Your task to perform on an android device: What's the weather going to be tomorrow? Image 0: 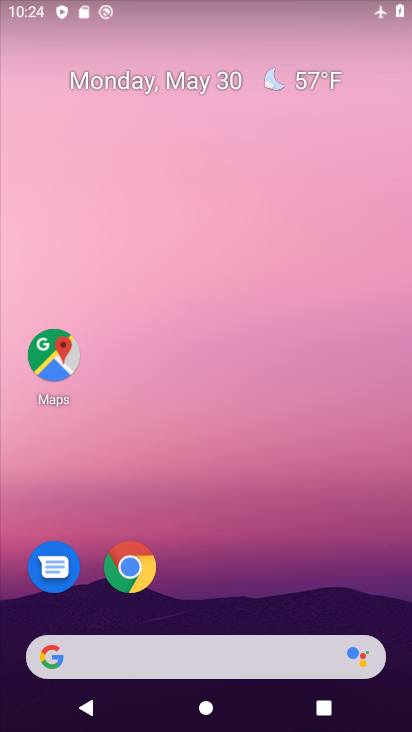
Step 0: drag from (196, 590) to (198, 119)
Your task to perform on an android device: What's the weather going to be tomorrow? Image 1: 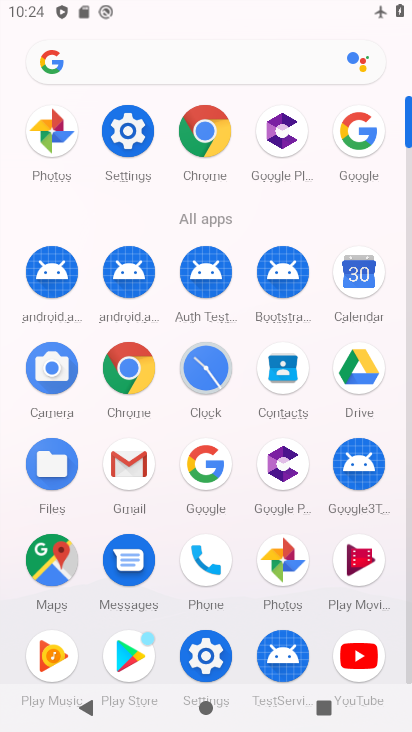
Step 1: click (181, 450)
Your task to perform on an android device: What's the weather going to be tomorrow? Image 2: 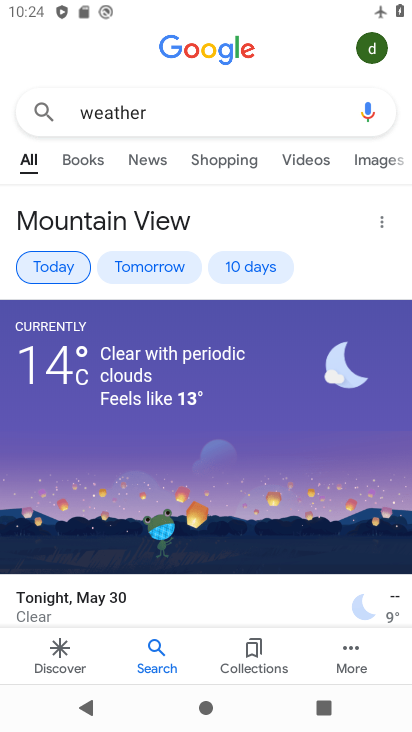
Step 2: click (171, 271)
Your task to perform on an android device: What's the weather going to be tomorrow? Image 3: 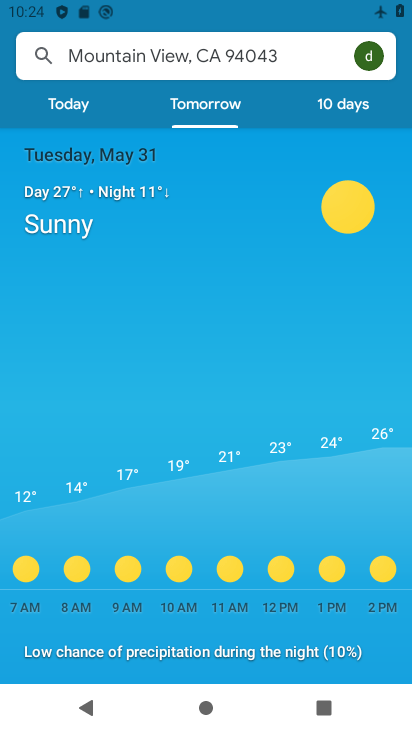
Step 3: task complete